Your task to perform on an android device: change keyboard looks Image 0: 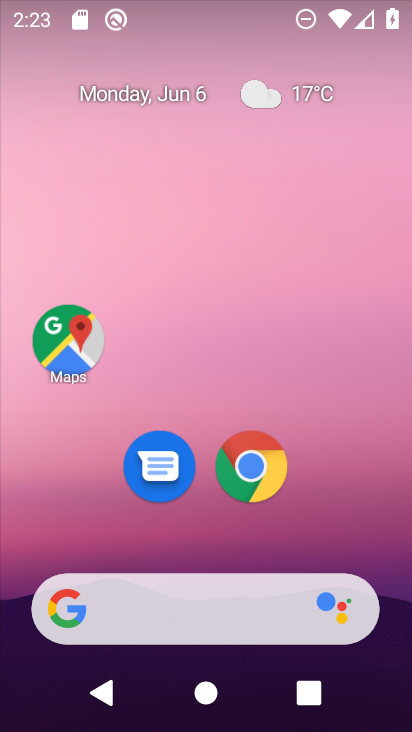
Step 0: drag from (184, 556) to (192, 39)
Your task to perform on an android device: change keyboard looks Image 1: 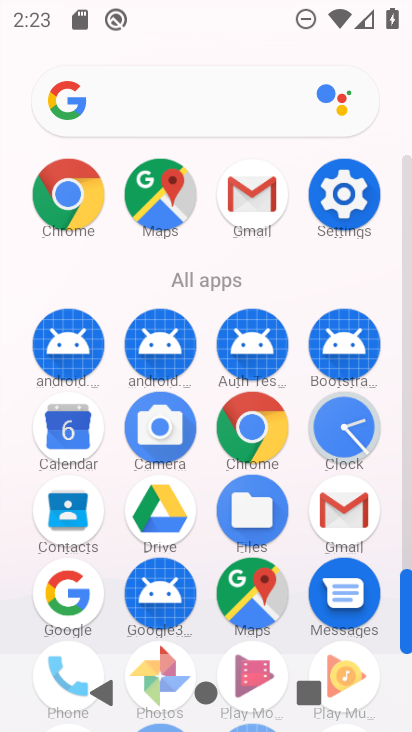
Step 1: click (351, 221)
Your task to perform on an android device: change keyboard looks Image 2: 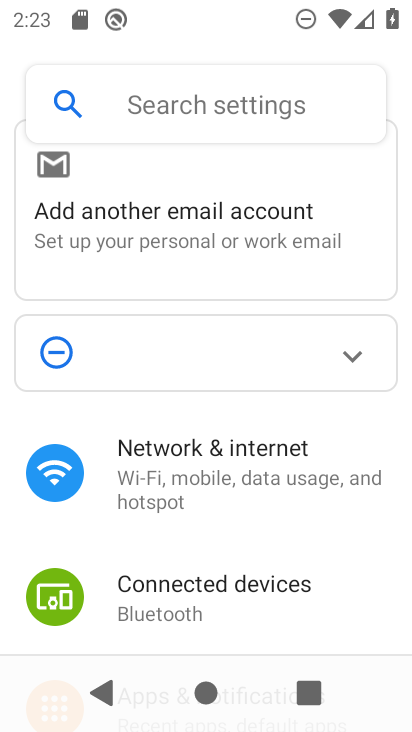
Step 2: drag from (181, 627) to (207, 260)
Your task to perform on an android device: change keyboard looks Image 3: 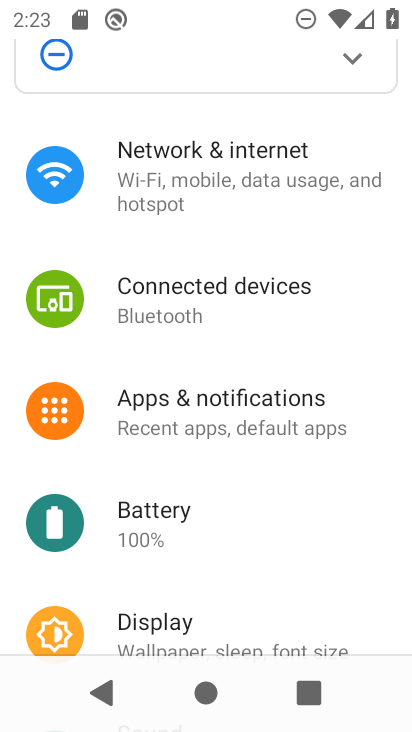
Step 3: drag from (238, 587) to (234, 205)
Your task to perform on an android device: change keyboard looks Image 4: 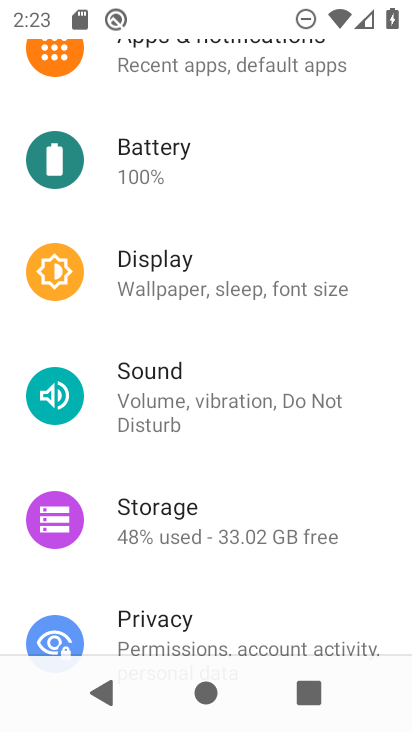
Step 4: drag from (243, 571) to (229, 174)
Your task to perform on an android device: change keyboard looks Image 5: 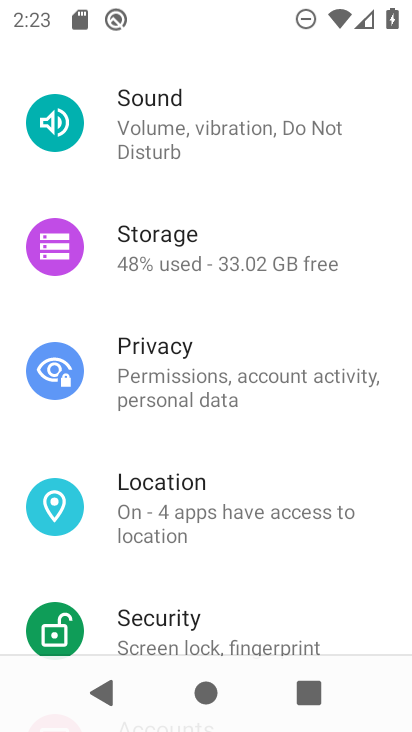
Step 5: drag from (210, 577) to (214, 295)
Your task to perform on an android device: change keyboard looks Image 6: 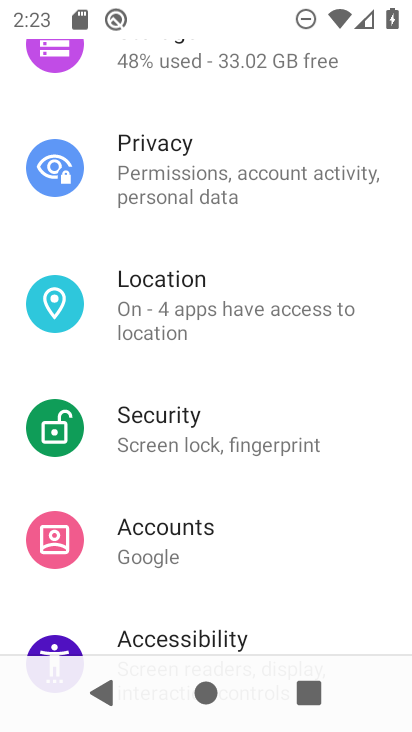
Step 6: drag from (205, 641) to (209, 239)
Your task to perform on an android device: change keyboard looks Image 7: 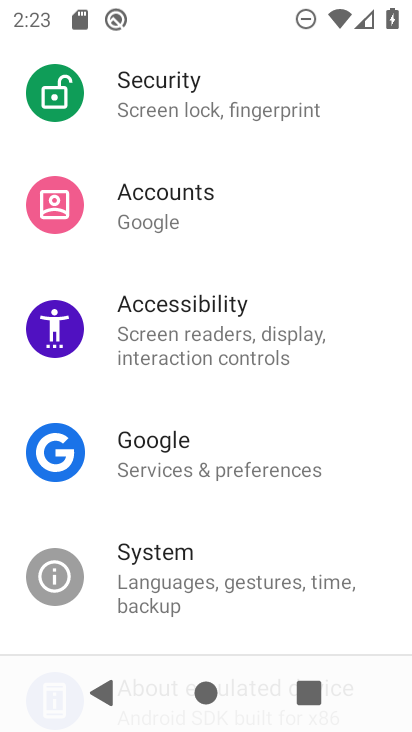
Step 7: drag from (184, 531) to (231, 263)
Your task to perform on an android device: change keyboard looks Image 8: 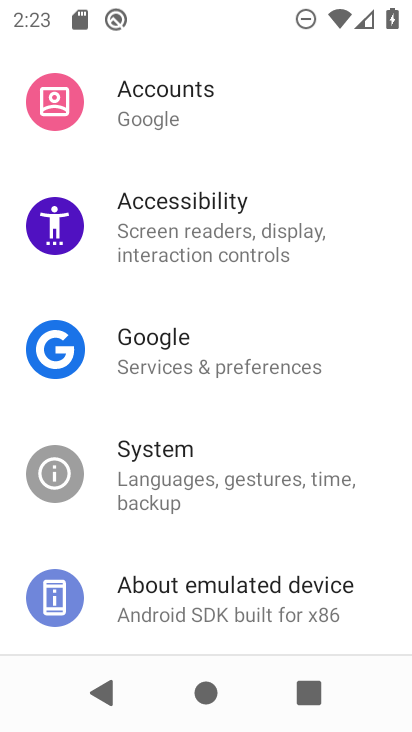
Step 8: click (188, 479)
Your task to perform on an android device: change keyboard looks Image 9: 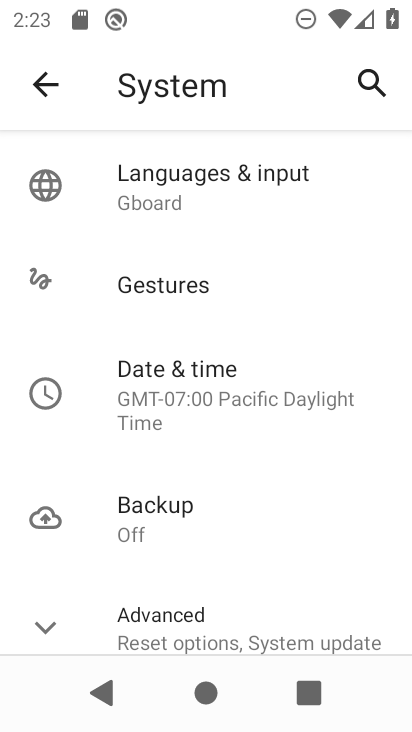
Step 9: click (201, 198)
Your task to perform on an android device: change keyboard looks Image 10: 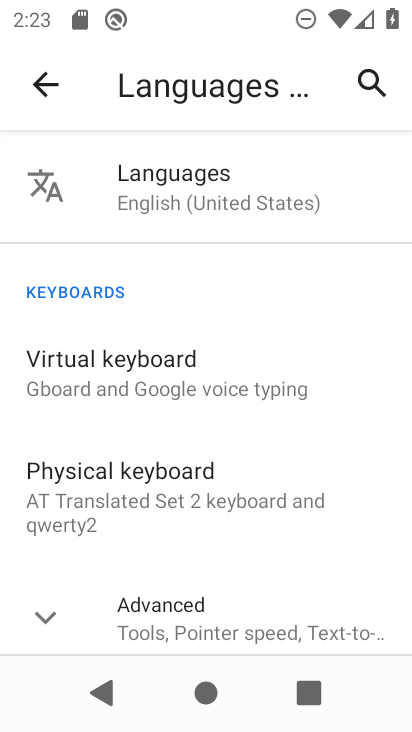
Step 10: click (153, 381)
Your task to perform on an android device: change keyboard looks Image 11: 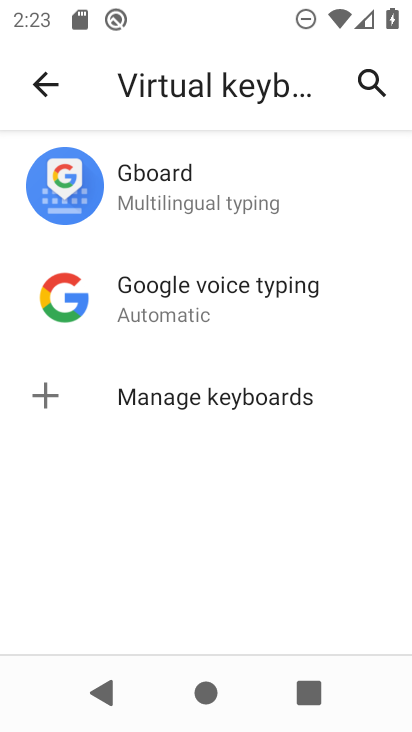
Step 11: click (124, 196)
Your task to perform on an android device: change keyboard looks Image 12: 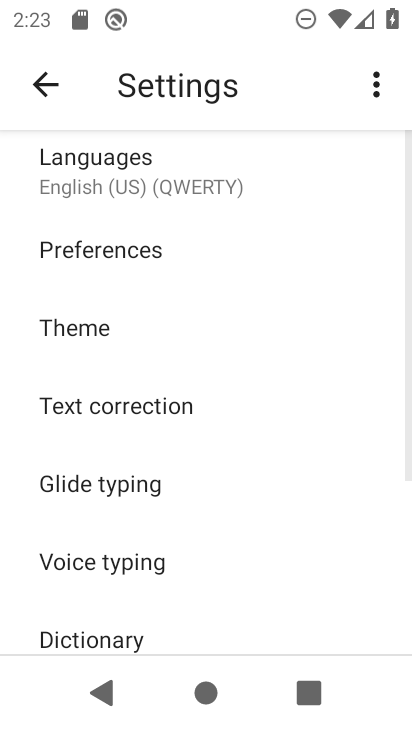
Step 12: click (90, 330)
Your task to perform on an android device: change keyboard looks Image 13: 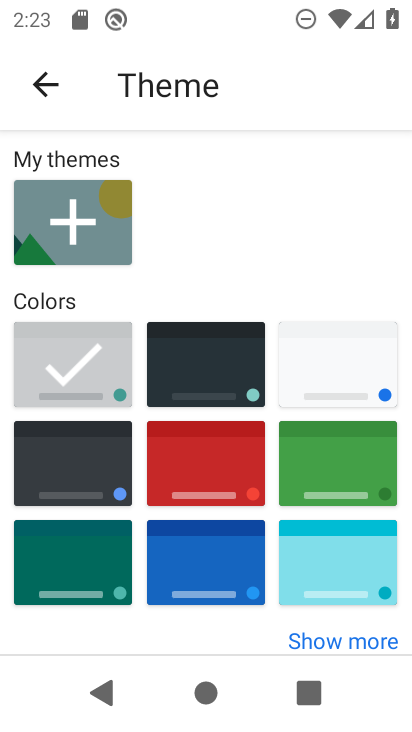
Step 13: click (177, 363)
Your task to perform on an android device: change keyboard looks Image 14: 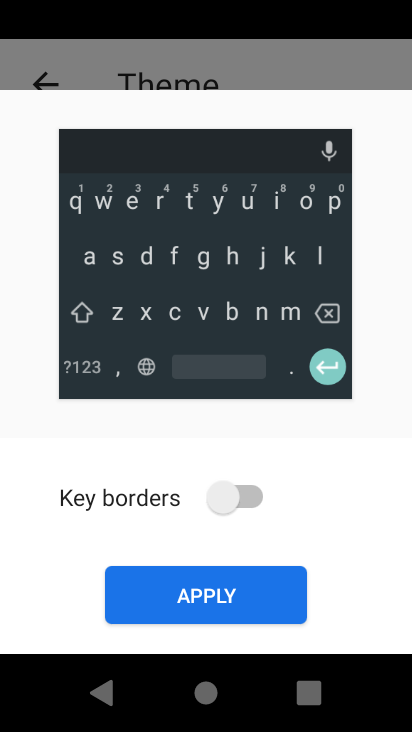
Step 14: click (196, 598)
Your task to perform on an android device: change keyboard looks Image 15: 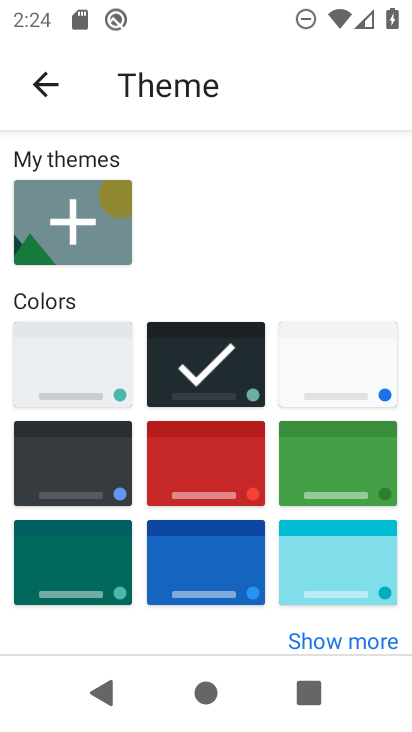
Step 15: task complete